Your task to perform on an android device: Is it going to rain this weekend? Image 0: 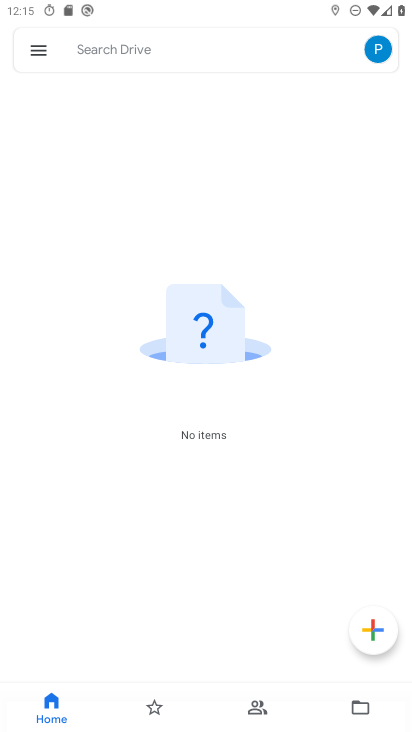
Step 0: press home button
Your task to perform on an android device: Is it going to rain this weekend? Image 1: 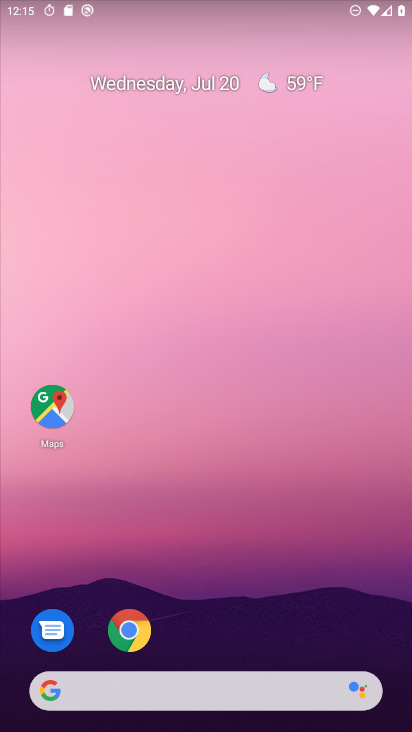
Step 1: drag from (195, 686) to (204, 2)
Your task to perform on an android device: Is it going to rain this weekend? Image 2: 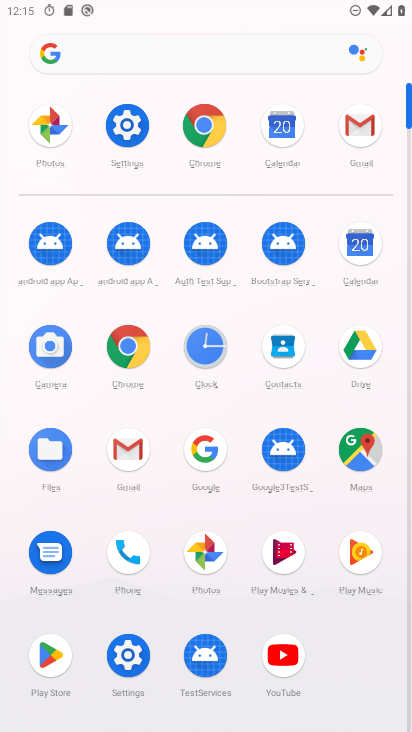
Step 2: click (134, 344)
Your task to perform on an android device: Is it going to rain this weekend? Image 3: 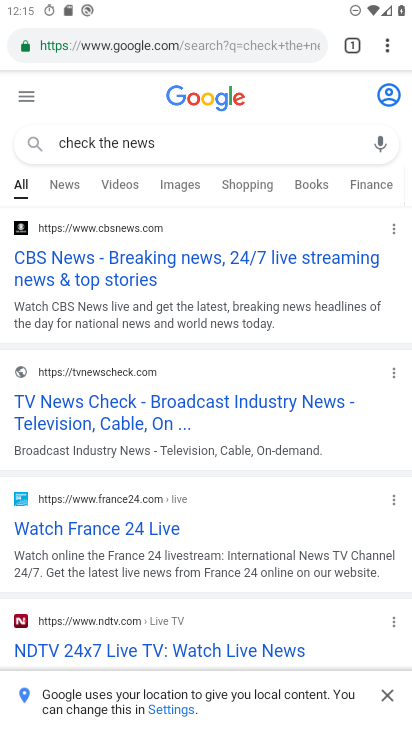
Step 3: click (200, 47)
Your task to perform on an android device: Is it going to rain this weekend? Image 4: 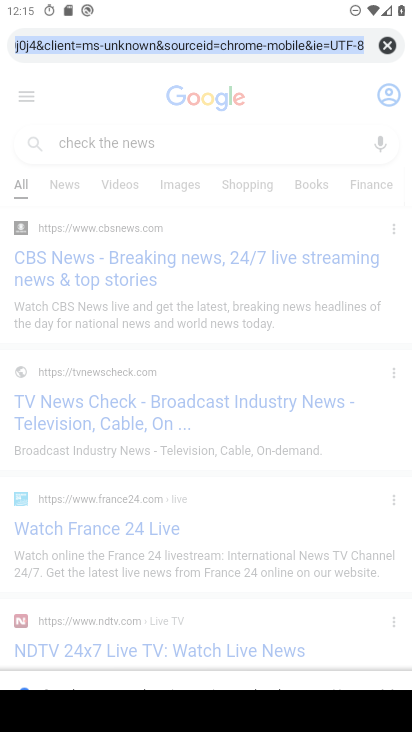
Step 4: click (390, 41)
Your task to perform on an android device: Is it going to rain this weekend? Image 5: 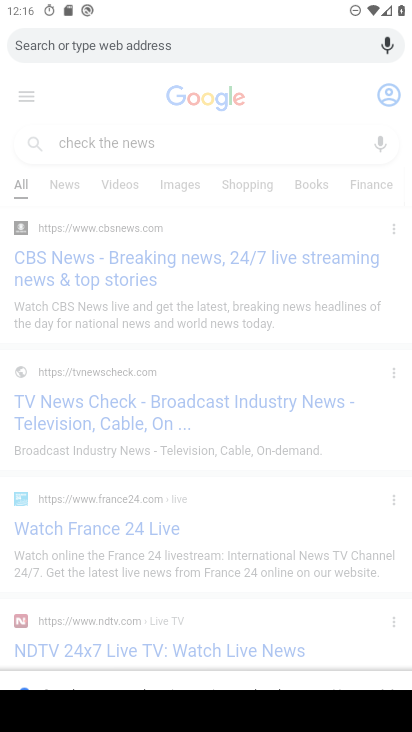
Step 5: type "going to rain this weekend"
Your task to perform on an android device: Is it going to rain this weekend? Image 6: 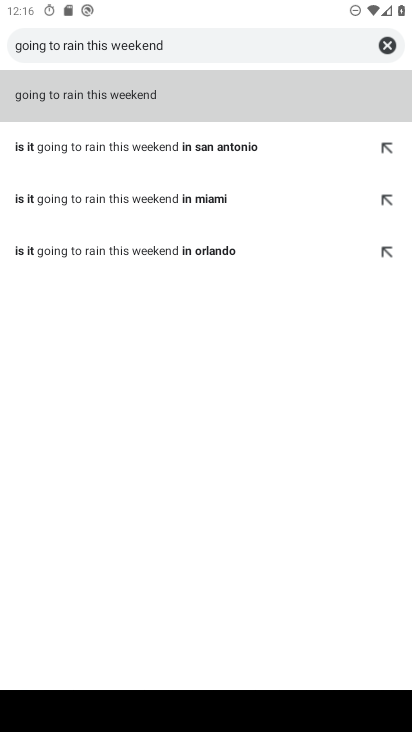
Step 6: click (103, 97)
Your task to perform on an android device: Is it going to rain this weekend? Image 7: 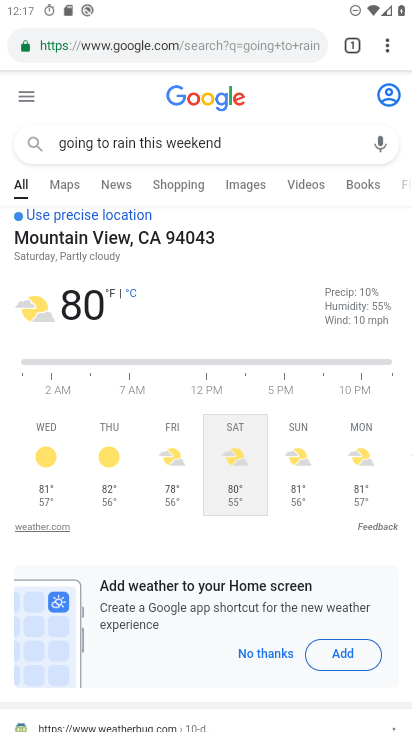
Step 7: task complete